Your task to perform on an android device: Go to Maps Image 0: 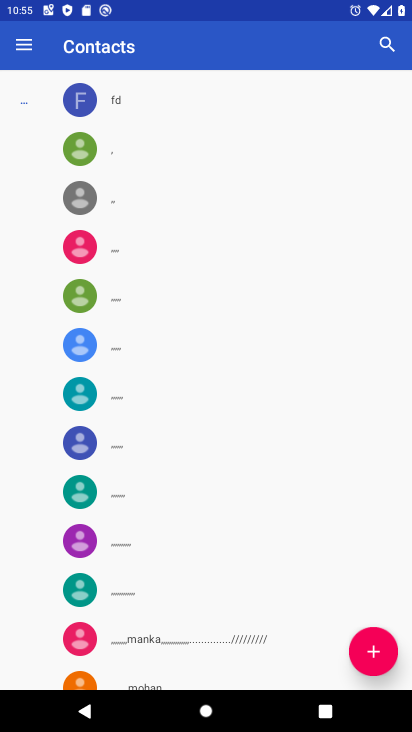
Step 0: press home button
Your task to perform on an android device: Go to Maps Image 1: 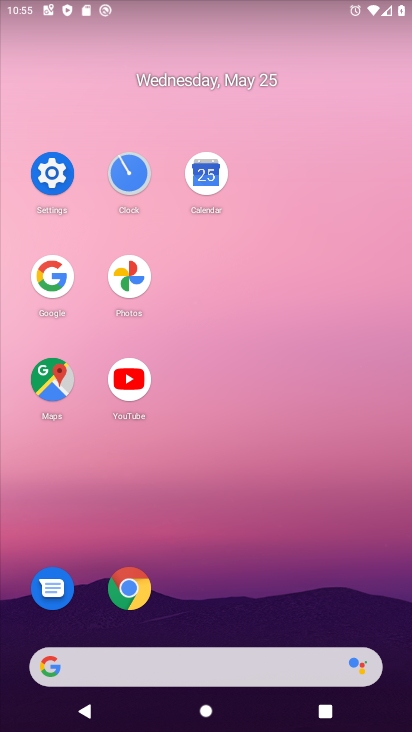
Step 1: click (54, 374)
Your task to perform on an android device: Go to Maps Image 2: 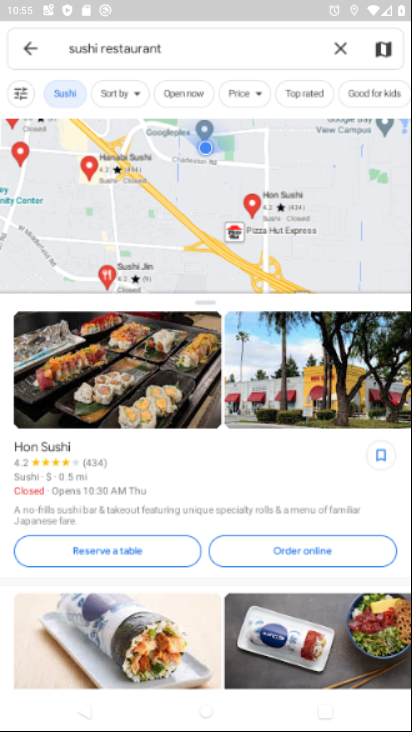
Step 2: task complete